Your task to perform on an android device: delete a single message in the gmail app Image 0: 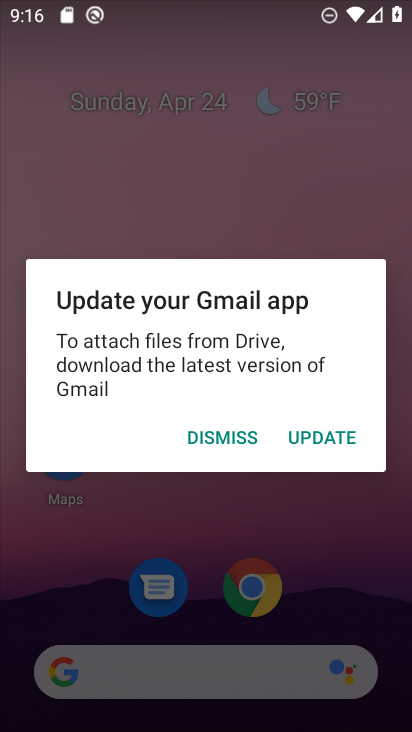
Step 0: press home button
Your task to perform on an android device: delete a single message in the gmail app Image 1: 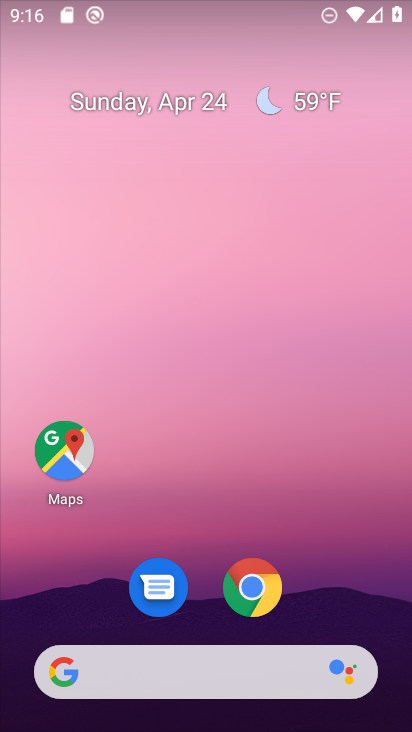
Step 1: drag from (204, 516) to (191, 16)
Your task to perform on an android device: delete a single message in the gmail app Image 2: 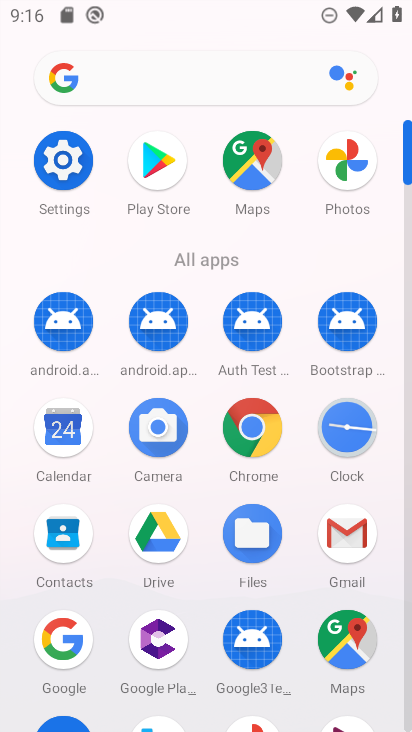
Step 2: click (346, 533)
Your task to perform on an android device: delete a single message in the gmail app Image 3: 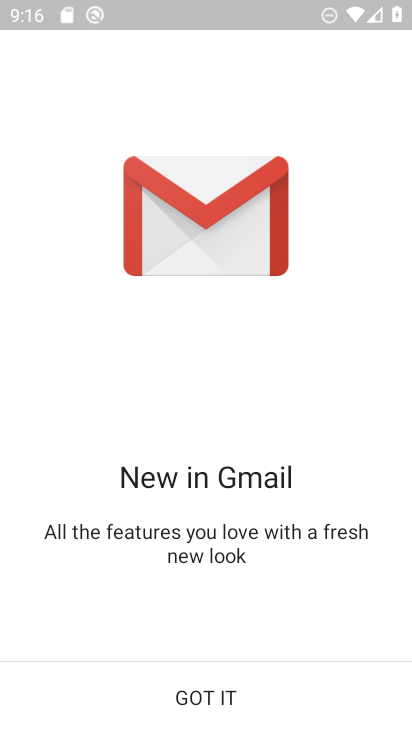
Step 3: click (210, 697)
Your task to perform on an android device: delete a single message in the gmail app Image 4: 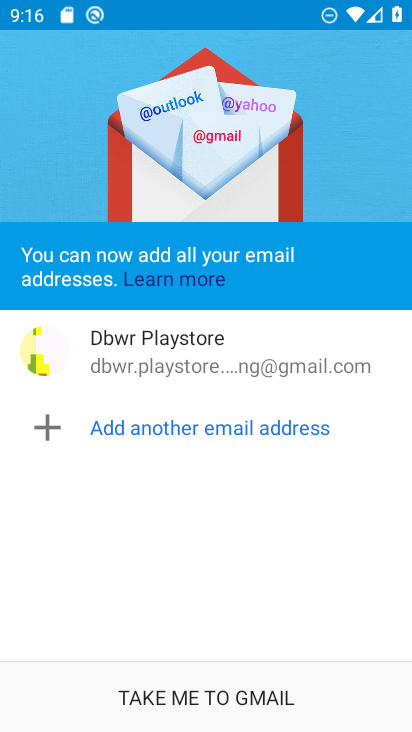
Step 4: click (210, 697)
Your task to perform on an android device: delete a single message in the gmail app Image 5: 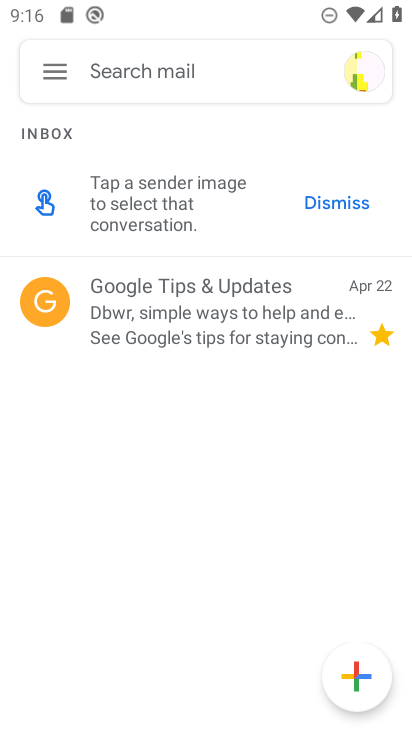
Step 5: click (200, 328)
Your task to perform on an android device: delete a single message in the gmail app Image 6: 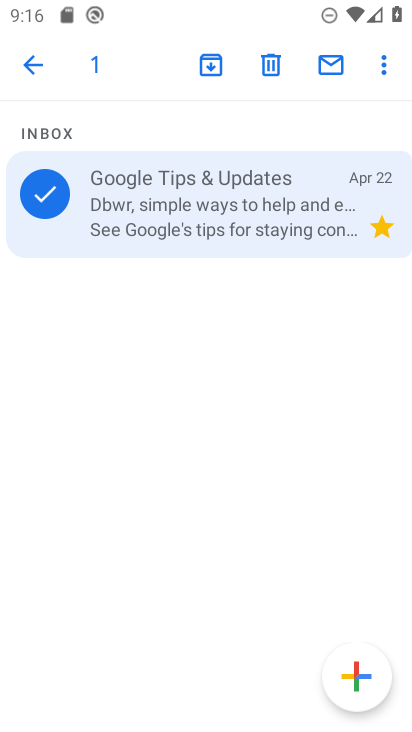
Step 6: click (274, 76)
Your task to perform on an android device: delete a single message in the gmail app Image 7: 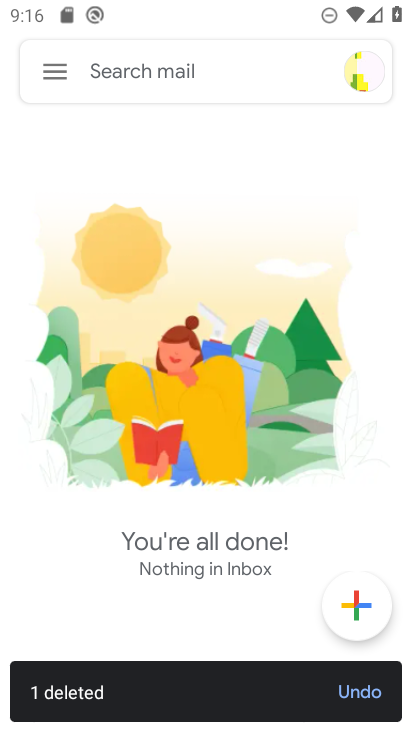
Step 7: task complete